Your task to perform on an android device: Open location settings Image 0: 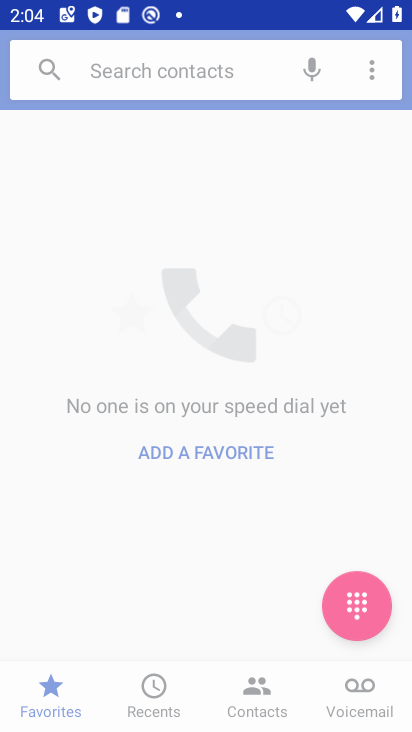
Step 0: drag from (307, 385) to (291, 180)
Your task to perform on an android device: Open location settings Image 1: 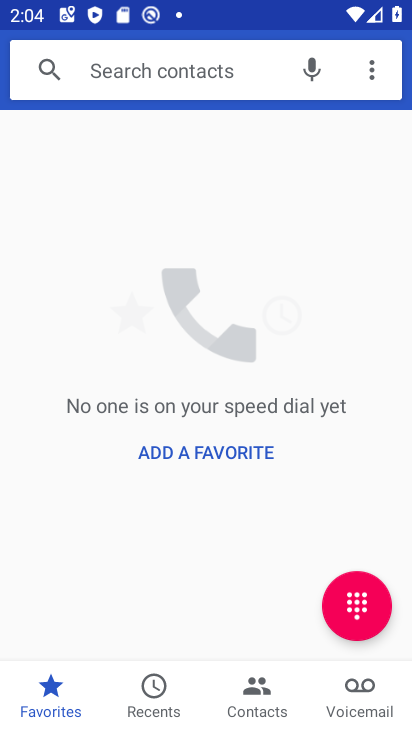
Step 1: press back button
Your task to perform on an android device: Open location settings Image 2: 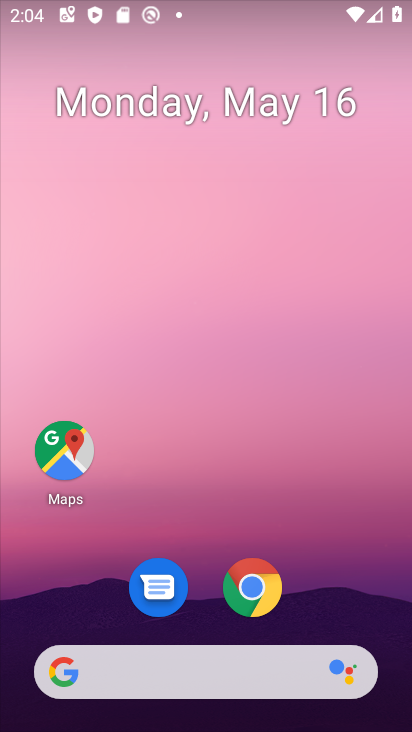
Step 2: drag from (345, 610) to (180, 214)
Your task to perform on an android device: Open location settings Image 3: 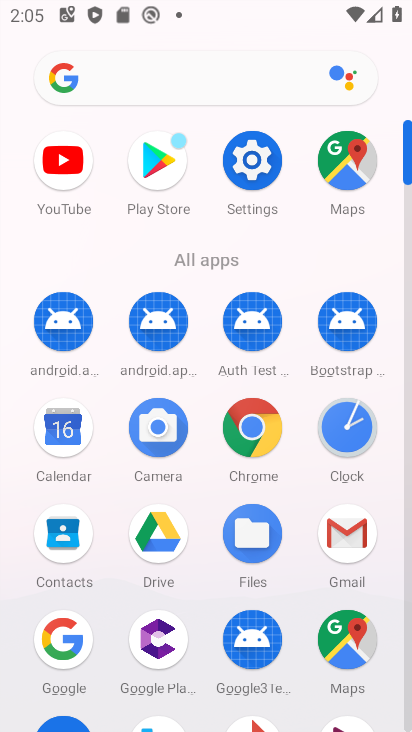
Step 3: click (258, 174)
Your task to perform on an android device: Open location settings Image 4: 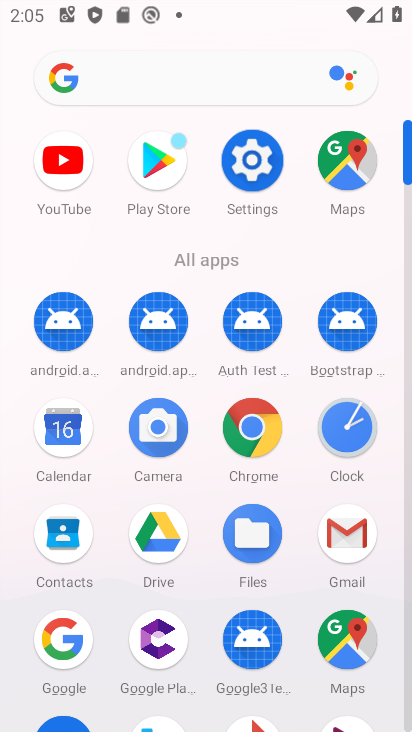
Step 4: click (259, 174)
Your task to perform on an android device: Open location settings Image 5: 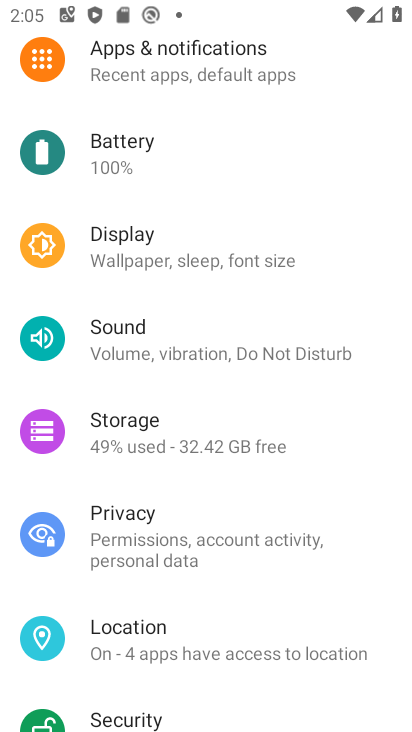
Step 5: click (177, 658)
Your task to perform on an android device: Open location settings Image 6: 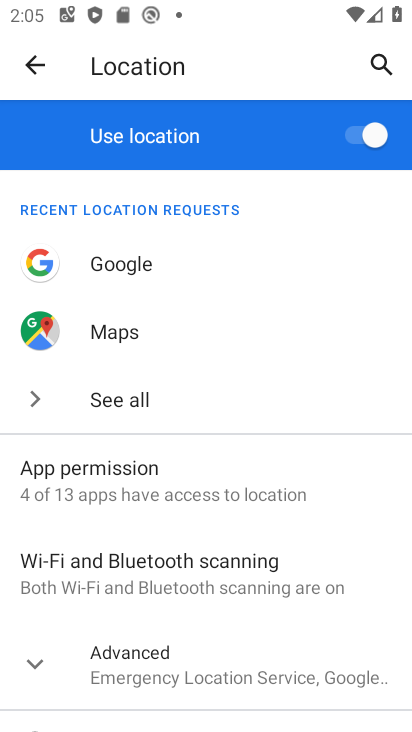
Step 6: click (381, 123)
Your task to perform on an android device: Open location settings Image 7: 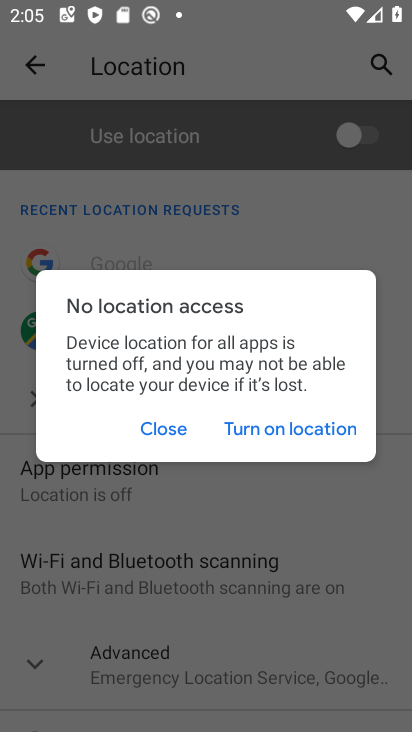
Step 7: click (354, 136)
Your task to perform on an android device: Open location settings Image 8: 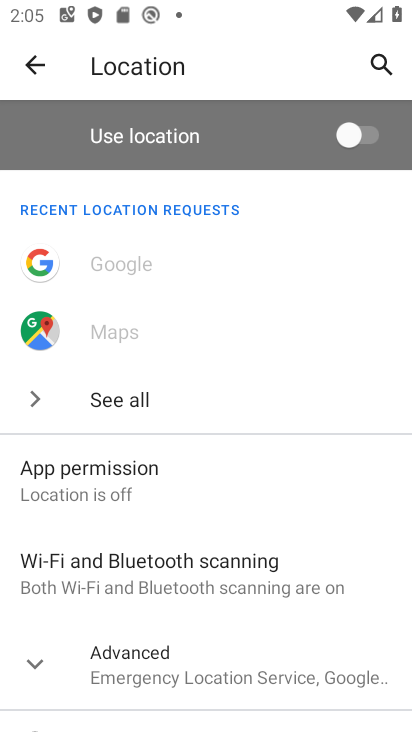
Step 8: click (355, 139)
Your task to perform on an android device: Open location settings Image 9: 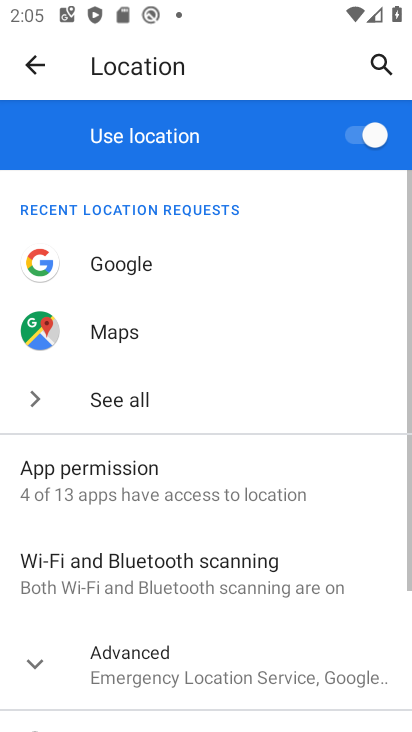
Step 9: task complete